Your task to perform on an android device: Open eBay Image 0: 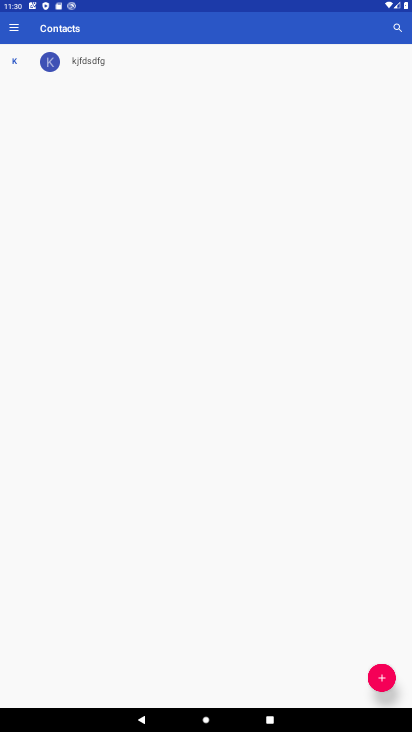
Step 0: press home button
Your task to perform on an android device: Open eBay Image 1: 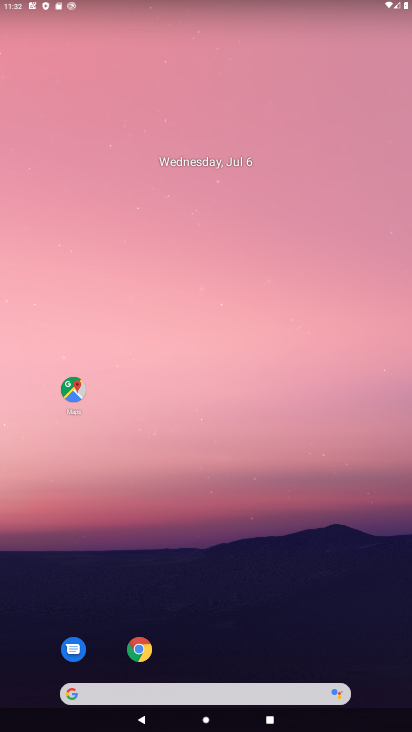
Step 1: drag from (384, 708) to (234, 56)
Your task to perform on an android device: Open eBay Image 2: 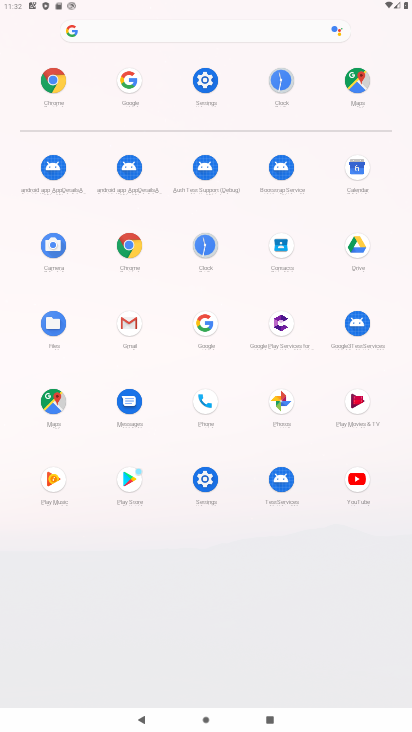
Step 2: click (126, 91)
Your task to perform on an android device: Open eBay Image 3: 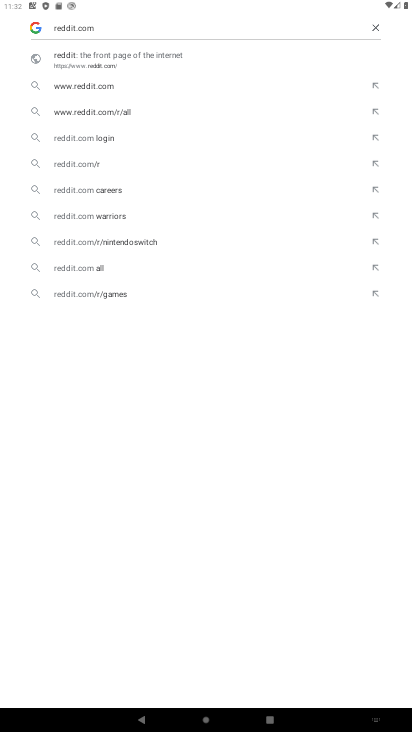
Step 3: press back button
Your task to perform on an android device: Open eBay Image 4: 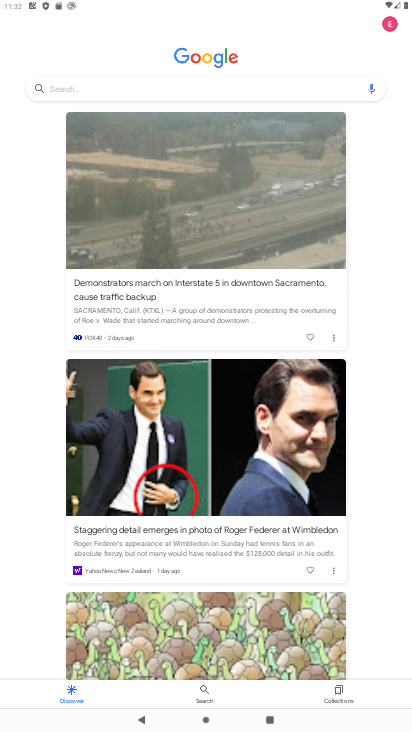
Step 4: click (73, 88)
Your task to perform on an android device: Open eBay Image 5: 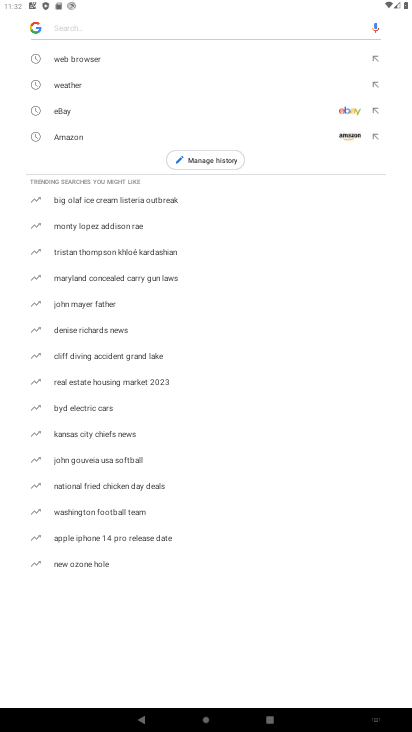
Step 5: click (88, 110)
Your task to perform on an android device: Open eBay Image 6: 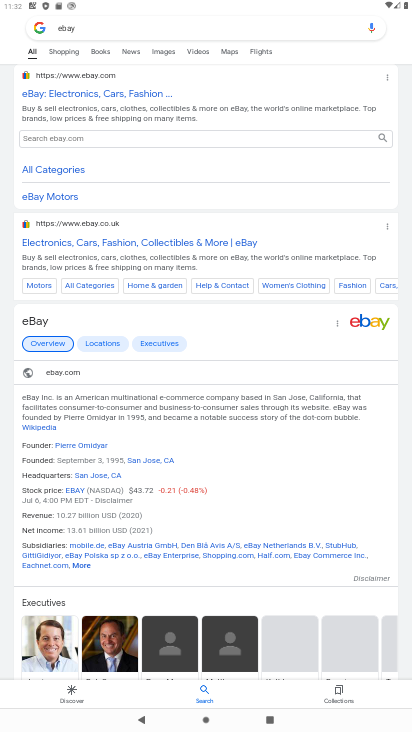
Step 6: task complete